Your task to perform on an android device: turn notification dots on Image 0: 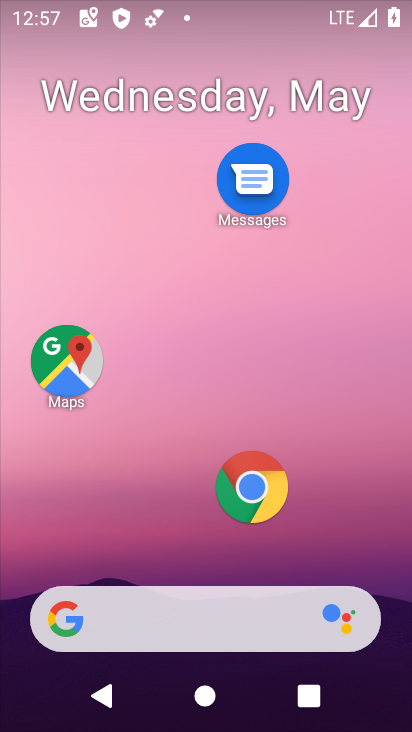
Step 0: drag from (164, 570) to (294, 15)
Your task to perform on an android device: turn notification dots on Image 1: 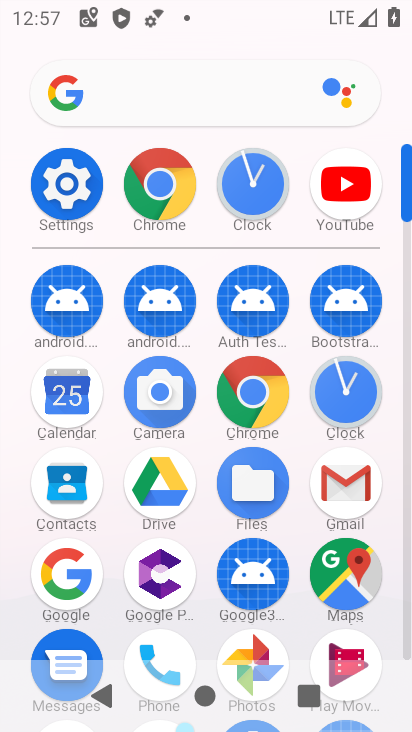
Step 1: click (74, 205)
Your task to perform on an android device: turn notification dots on Image 2: 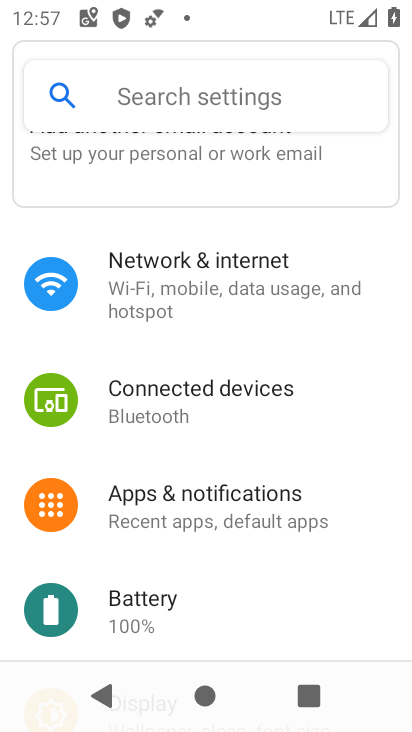
Step 2: click (234, 507)
Your task to perform on an android device: turn notification dots on Image 3: 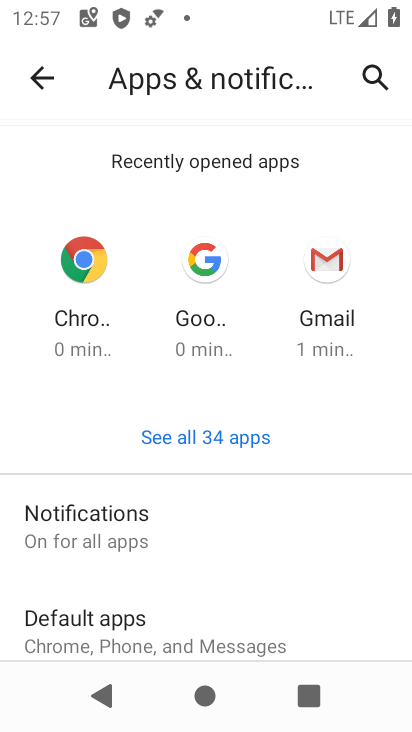
Step 3: drag from (101, 606) to (165, 317)
Your task to perform on an android device: turn notification dots on Image 4: 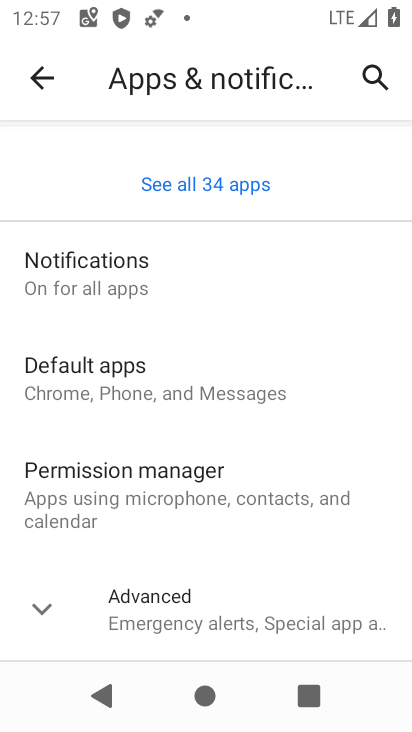
Step 4: click (115, 286)
Your task to perform on an android device: turn notification dots on Image 5: 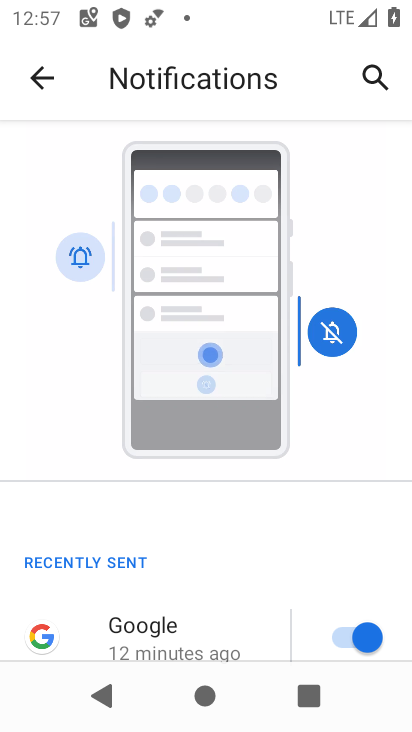
Step 5: drag from (176, 564) to (234, 263)
Your task to perform on an android device: turn notification dots on Image 6: 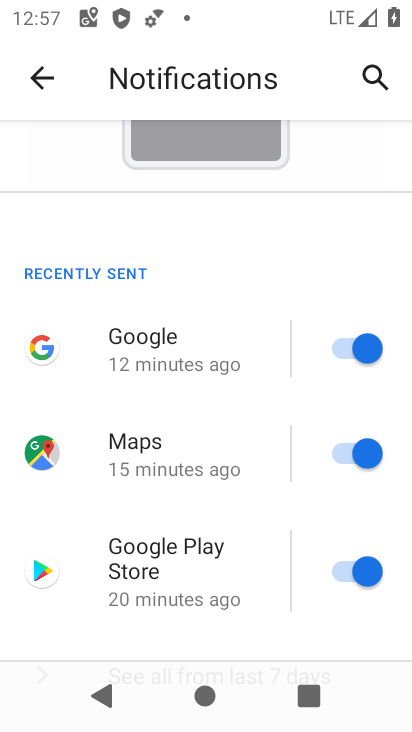
Step 6: drag from (149, 557) to (236, 154)
Your task to perform on an android device: turn notification dots on Image 7: 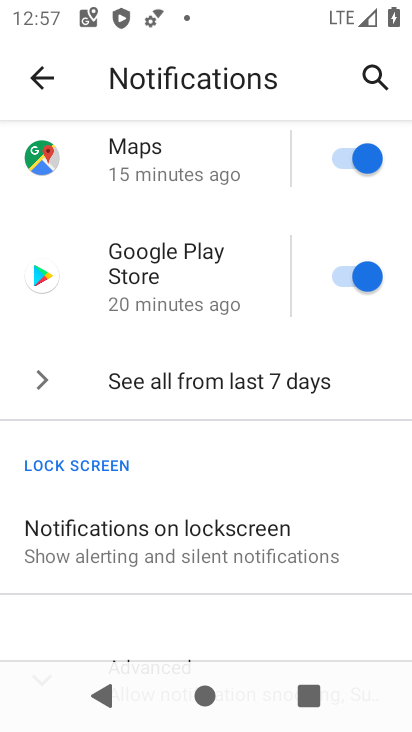
Step 7: drag from (163, 592) to (220, 310)
Your task to perform on an android device: turn notification dots on Image 8: 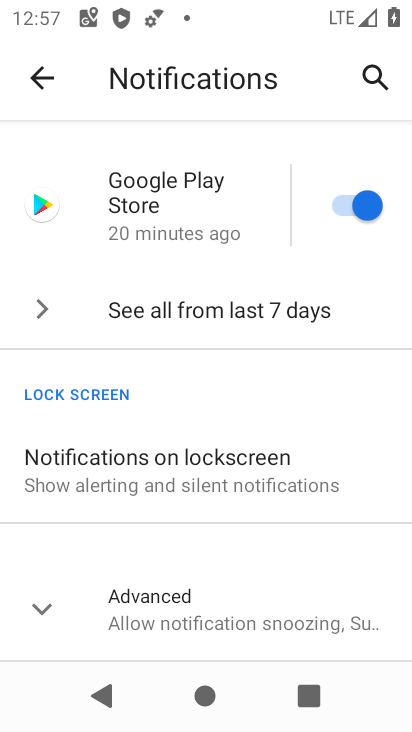
Step 8: click (118, 601)
Your task to perform on an android device: turn notification dots on Image 9: 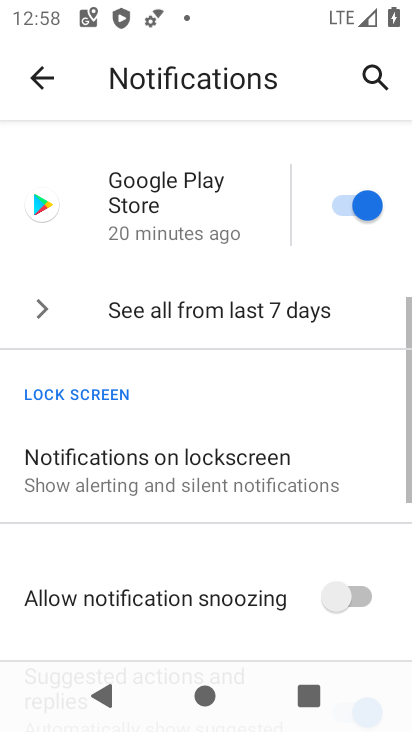
Step 9: task complete